Your task to perform on an android device: Open internet settings Image 0: 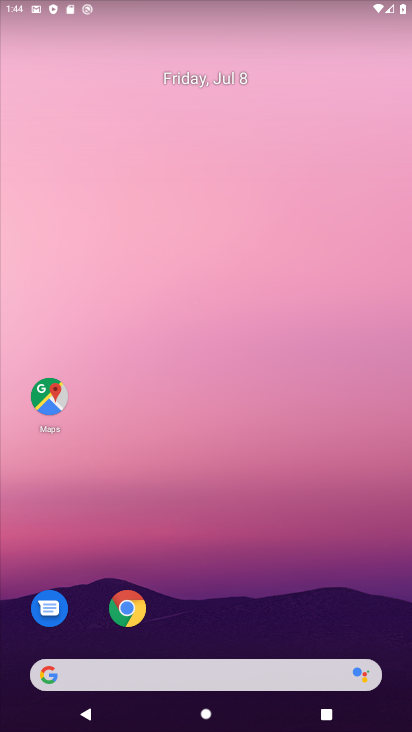
Step 0: drag from (220, 424) to (221, 18)
Your task to perform on an android device: Open internet settings Image 1: 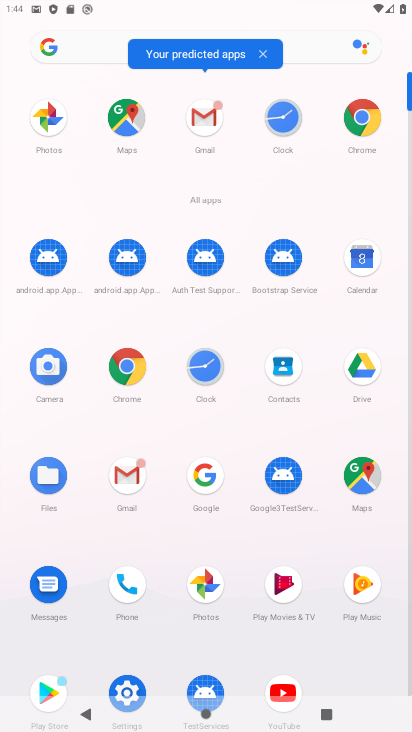
Step 1: click (127, 690)
Your task to perform on an android device: Open internet settings Image 2: 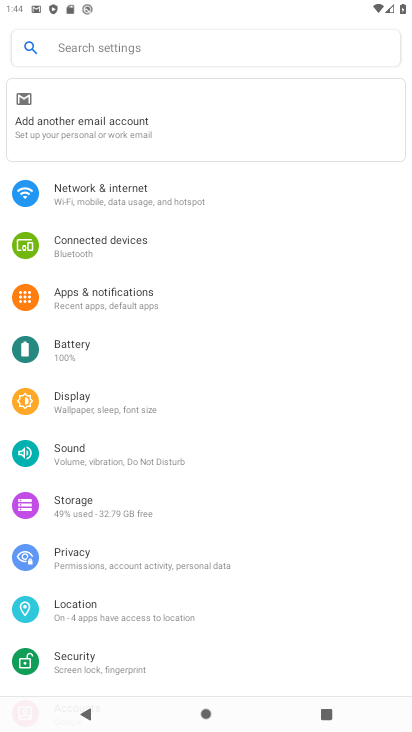
Step 2: click (89, 205)
Your task to perform on an android device: Open internet settings Image 3: 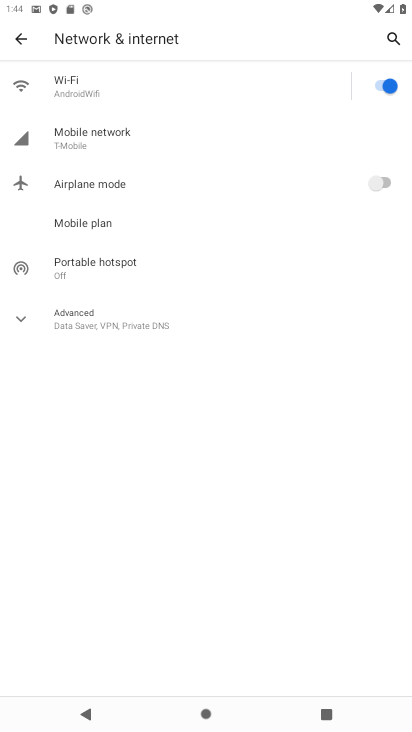
Step 3: click (120, 131)
Your task to perform on an android device: Open internet settings Image 4: 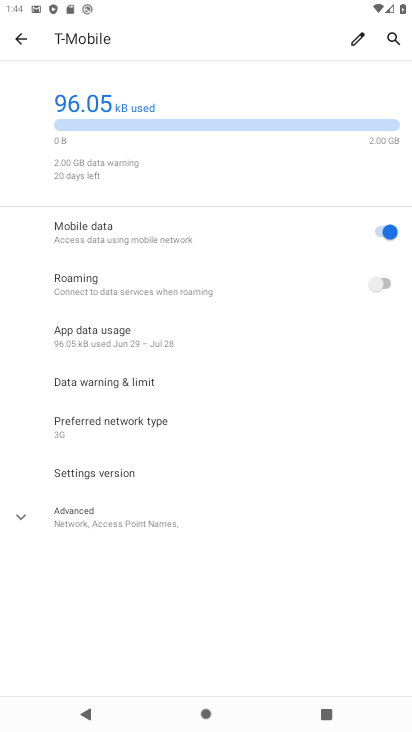
Step 4: task complete